Your task to perform on an android device: When is my next meeting? Image 0: 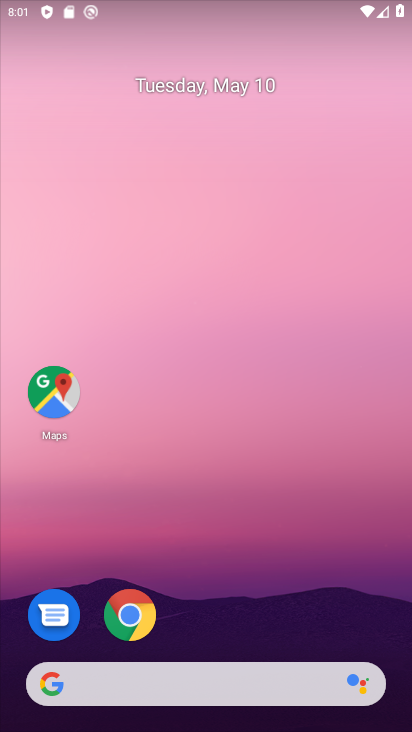
Step 0: drag from (328, 444) to (410, 211)
Your task to perform on an android device: When is my next meeting? Image 1: 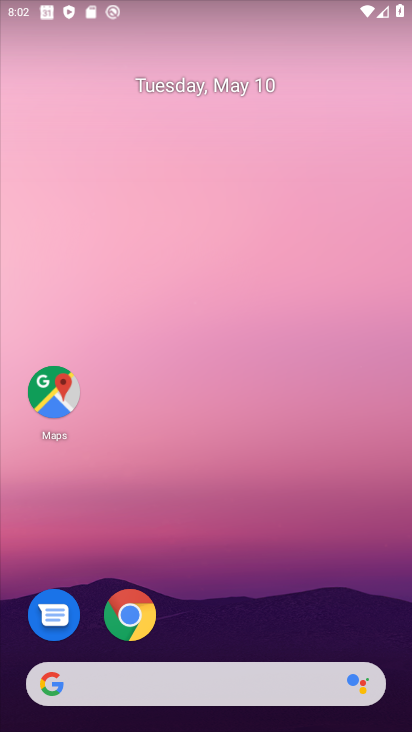
Step 1: click (235, 193)
Your task to perform on an android device: When is my next meeting? Image 2: 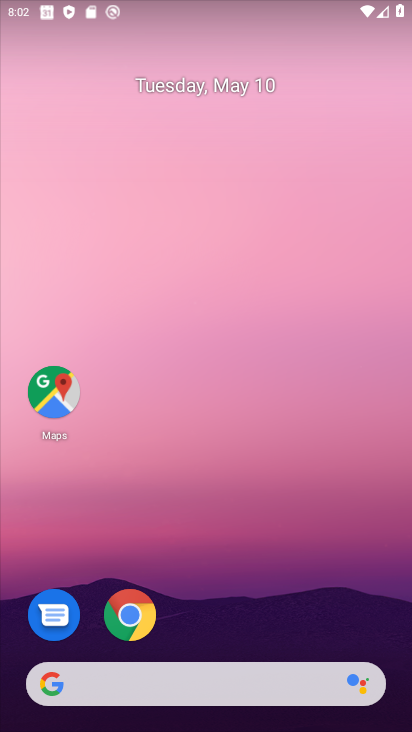
Step 2: drag from (193, 601) to (334, 169)
Your task to perform on an android device: When is my next meeting? Image 3: 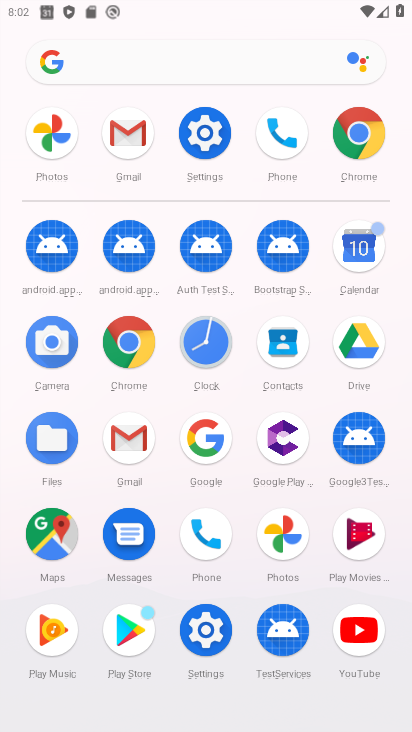
Step 3: click (358, 244)
Your task to perform on an android device: When is my next meeting? Image 4: 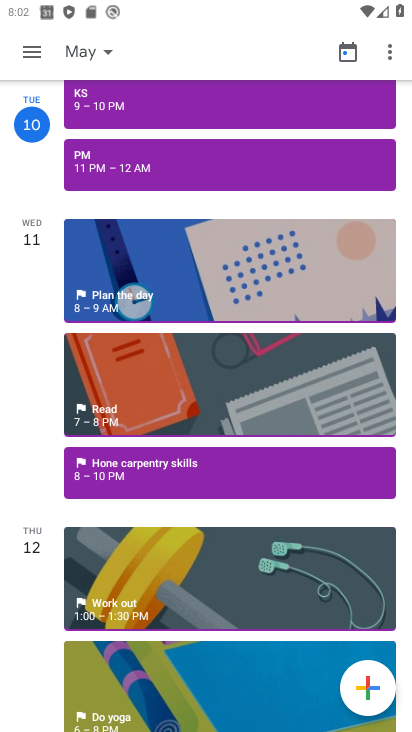
Step 4: task complete